Your task to perform on an android device: turn on airplane mode Image 0: 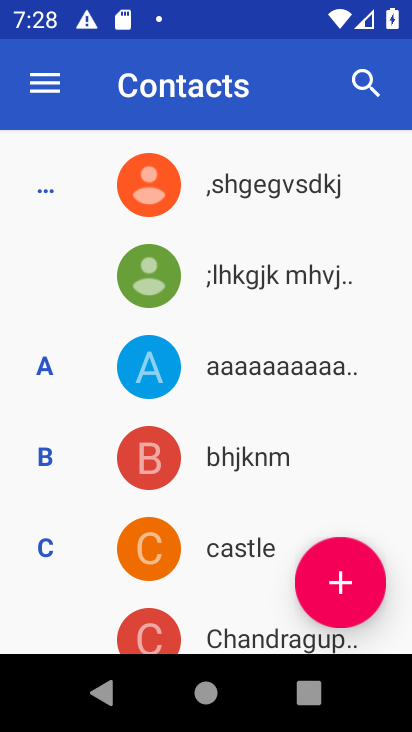
Step 0: task complete